Your task to perform on an android device: Add "razer blade" to the cart on walmart Image 0: 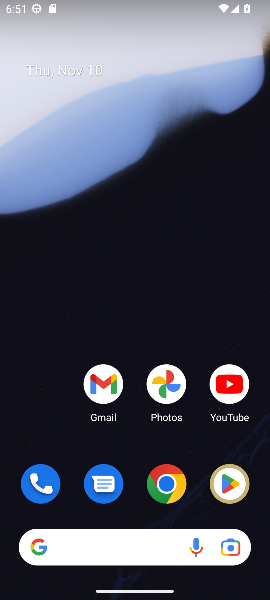
Step 0: click (161, 484)
Your task to perform on an android device: Add "razer blade" to the cart on walmart Image 1: 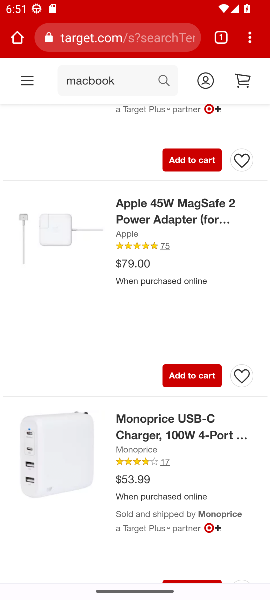
Step 1: click (111, 42)
Your task to perform on an android device: Add "razer blade" to the cart on walmart Image 2: 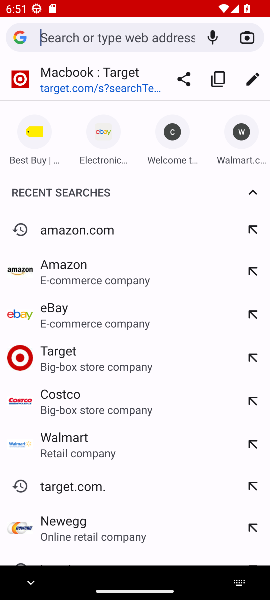
Step 2: click (235, 147)
Your task to perform on an android device: Add "razer blade" to the cart on walmart Image 3: 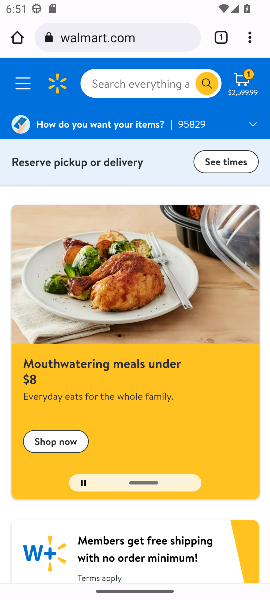
Step 3: click (137, 83)
Your task to perform on an android device: Add "razer blade" to the cart on walmart Image 4: 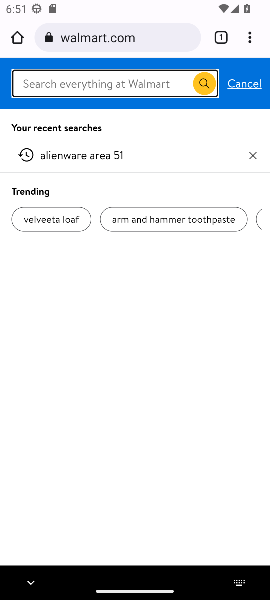
Step 4: type "razer blade"
Your task to perform on an android device: Add "razer blade" to the cart on walmart Image 5: 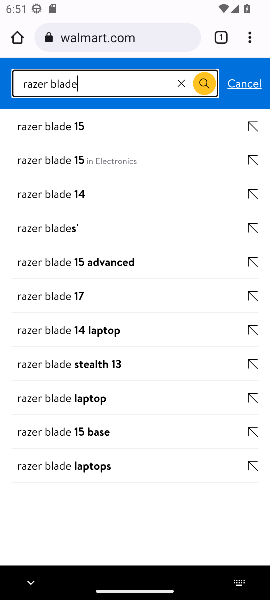
Step 5: click (203, 79)
Your task to perform on an android device: Add "razer blade" to the cart on walmart Image 6: 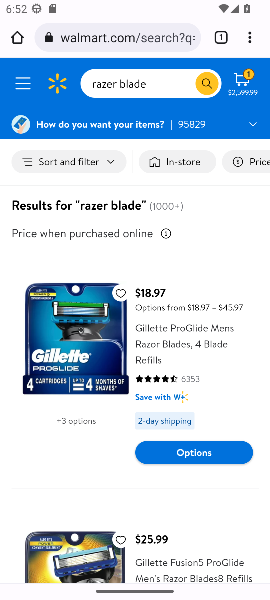
Step 6: task complete